Your task to perform on an android device: Check the news Image 0: 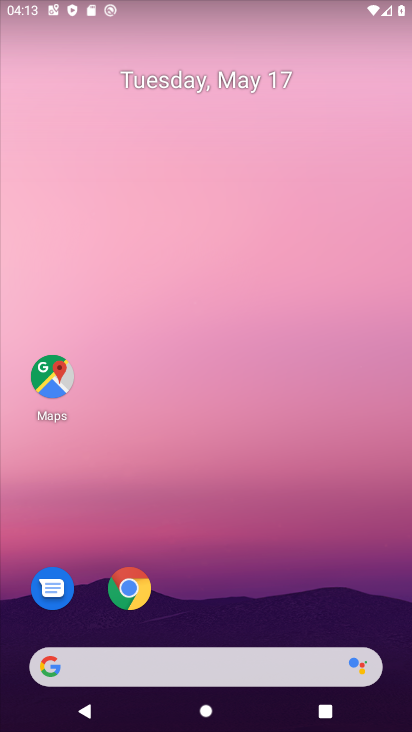
Step 0: click (130, 588)
Your task to perform on an android device: Check the news Image 1: 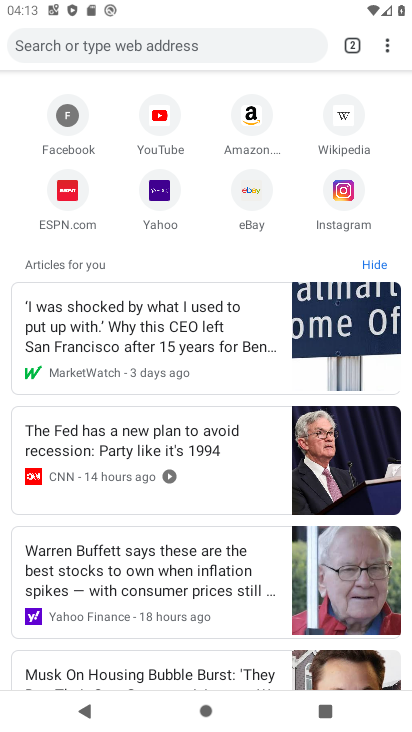
Step 1: click (258, 48)
Your task to perform on an android device: Check the news Image 2: 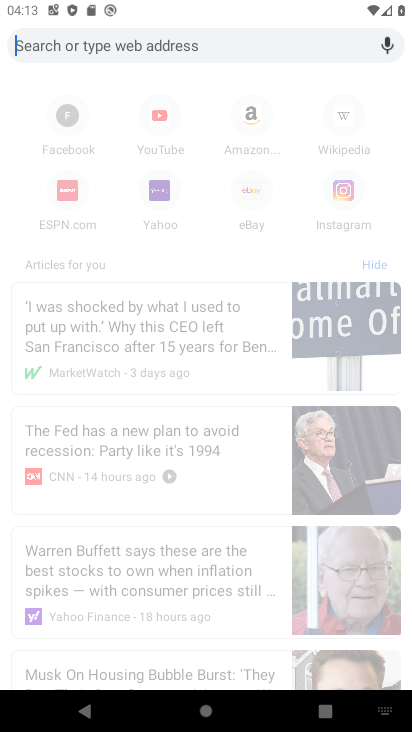
Step 2: type "news"
Your task to perform on an android device: Check the news Image 3: 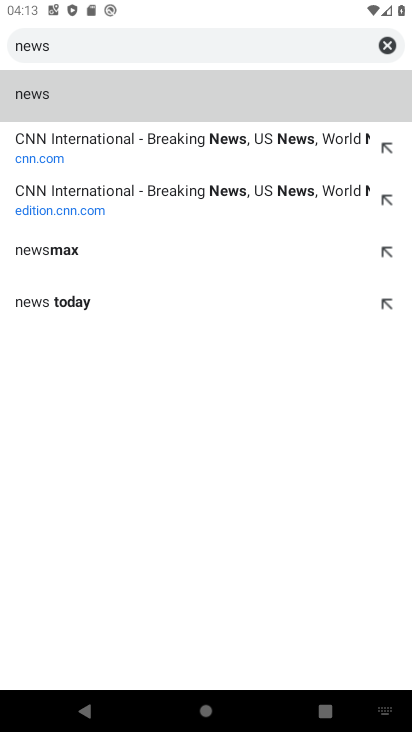
Step 3: click (54, 97)
Your task to perform on an android device: Check the news Image 4: 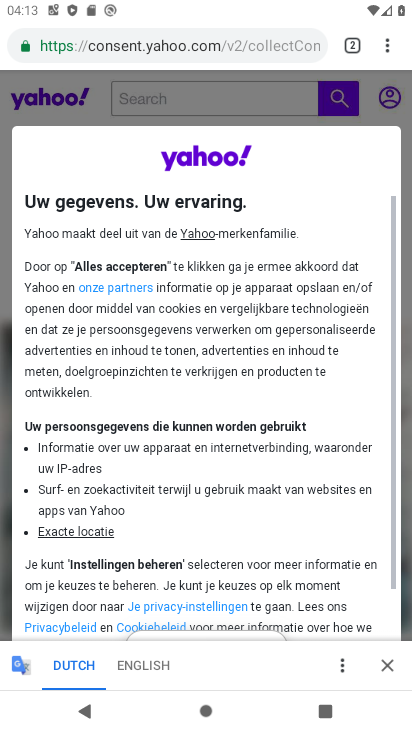
Step 4: press home button
Your task to perform on an android device: Check the news Image 5: 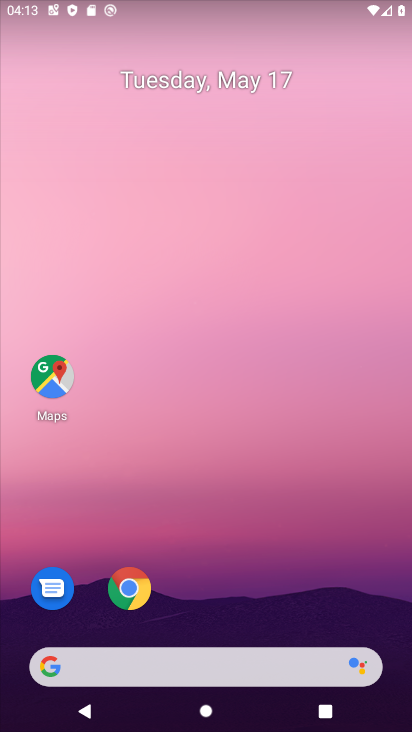
Step 5: drag from (228, 589) to (189, 148)
Your task to perform on an android device: Check the news Image 6: 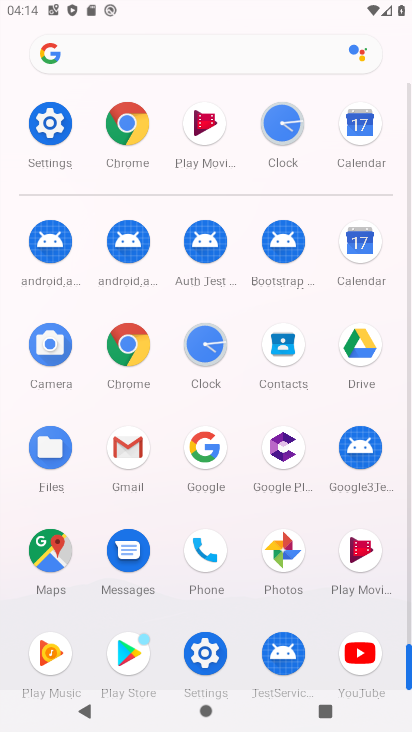
Step 6: click (202, 448)
Your task to perform on an android device: Check the news Image 7: 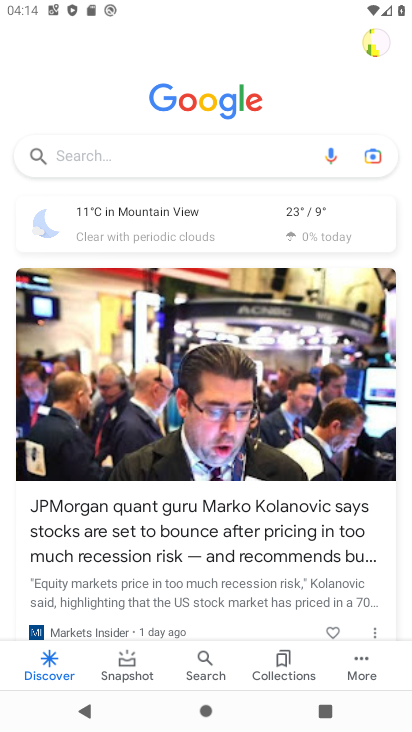
Step 7: click (129, 141)
Your task to perform on an android device: Check the news Image 8: 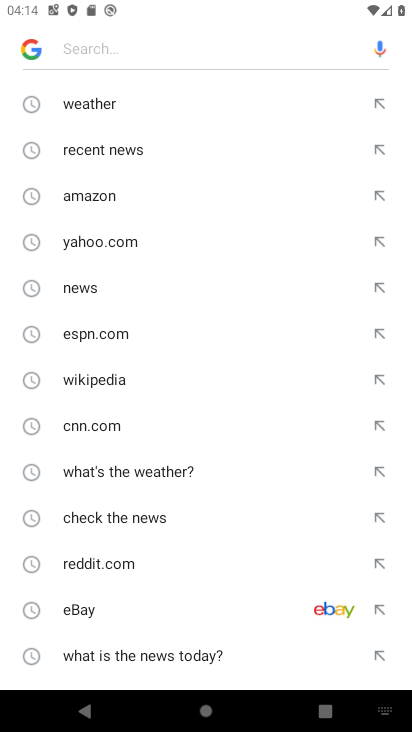
Step 8: type "news"
Your task to perform on an android device: Check the news Image 9: 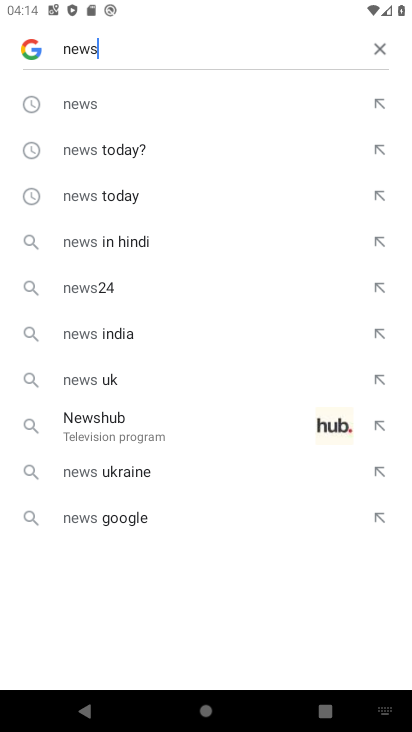
Step 9: click (78, 112)
Your task to perform on an android device: Check the news Image 10: 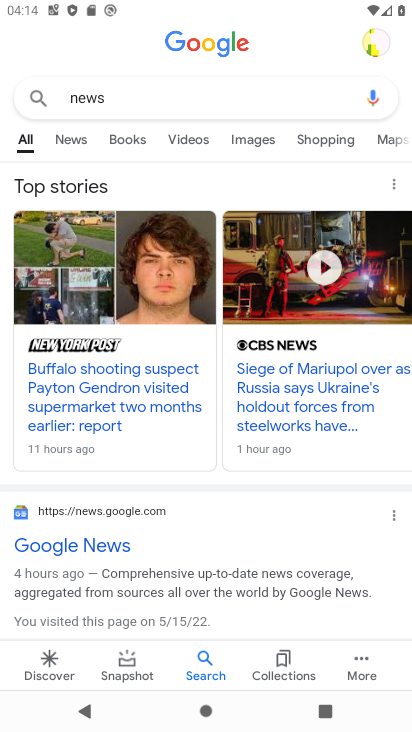
Step 10: task complete